Your task to perform on an android device: remove spam from my inbox in the gmail app Image 0: 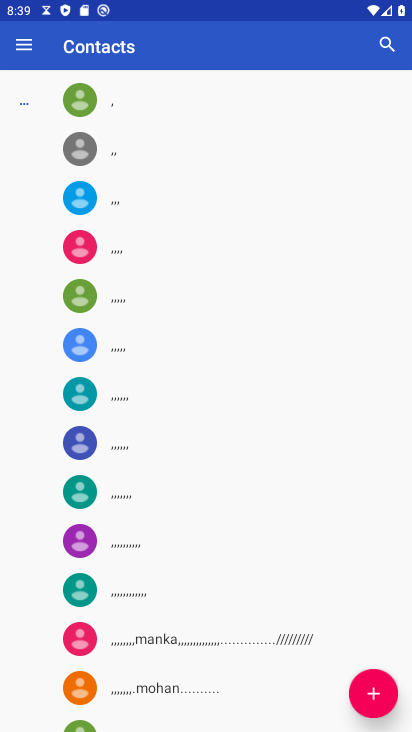
Step 0: press home button
Your task to perform on an android device: remove spam from my inbox in the gmail app Image 1: 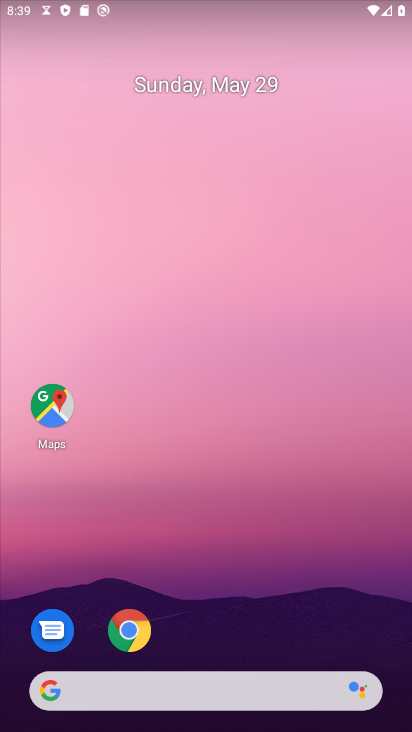
Step 1: drag from (233, 531) to (238, 336)
Your task to perform on an android device: remove spam from my inbox in the gmail app Image 2: 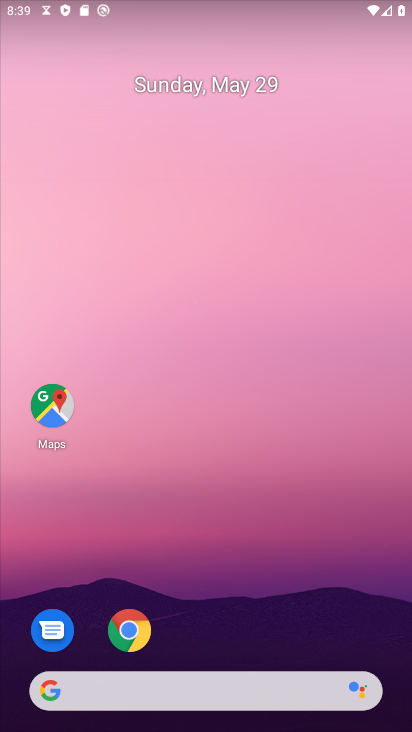
Step 2: drag from (241, 598) to (276, 133)
Your task to perform on an android device: remove spam from my inbox in the gmail app Image 3: 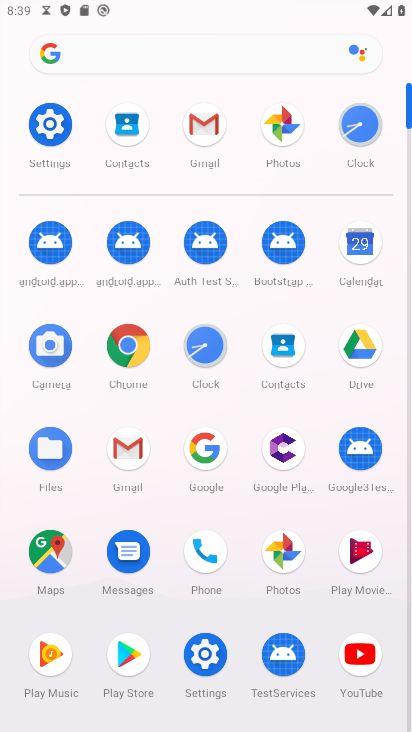
Step 3: click (120, 456)
Your task to perform on an android device: remove spam from my inbox in the gmail app Image 4: 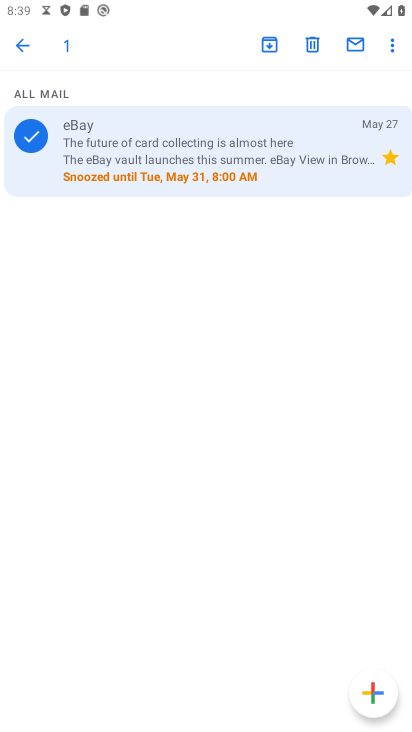
Step 4: click (24, 37)
Your task to perform on an android device: remove spam from my inbox in the gmail app Image 5: 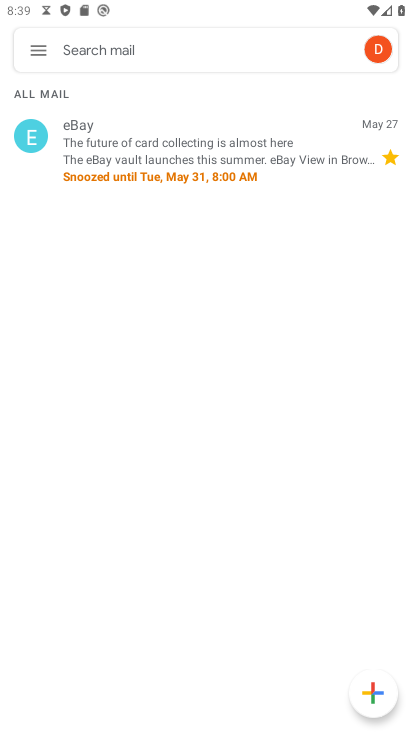
Step 5: click (32, 48)
Your task to perform on an android device: remove spam from my inbox in the gmail app Image 6: 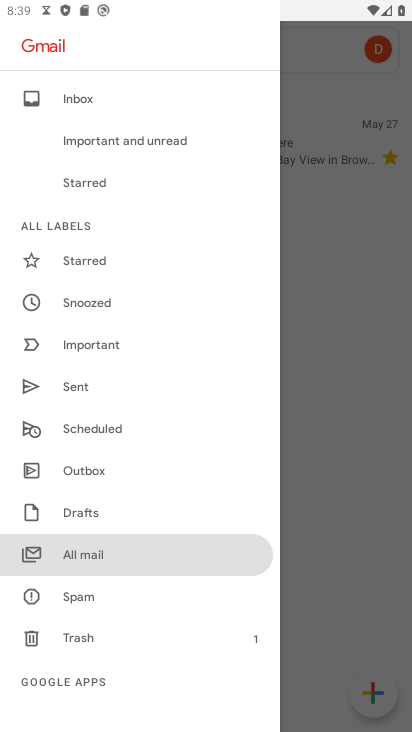
Step 6: click (76, 605)
Your task to perform on an android device: remove spam from my inbox in the gmail app Image 7: 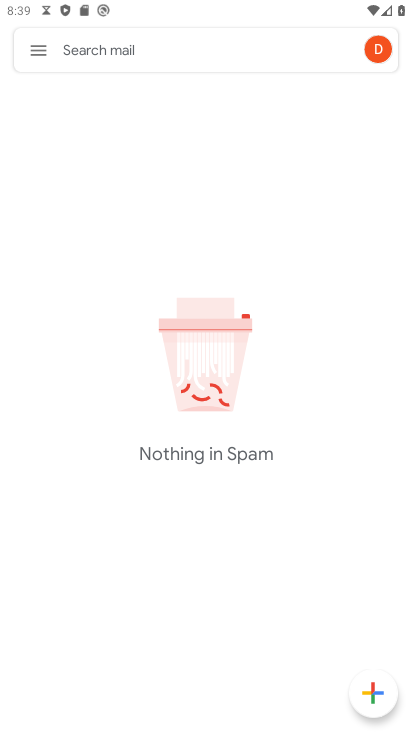
Step 7: task complete